Your task to perform on an android device: make emails show in primary in the gmail app Image 0: 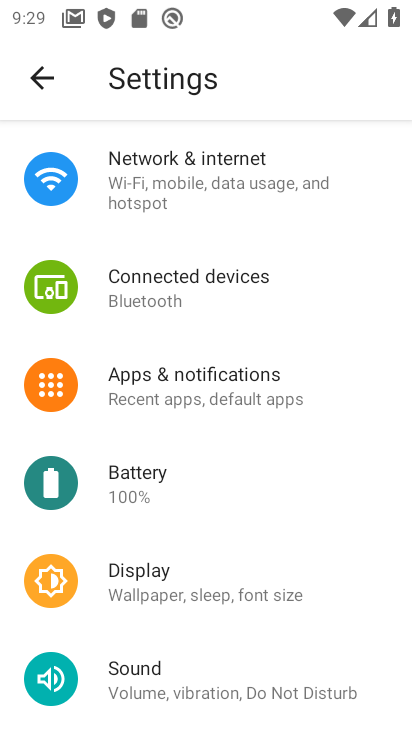
Step 0: press home button
Your task to perform on an android device: make emails show in primary in the gmail app Image 1: 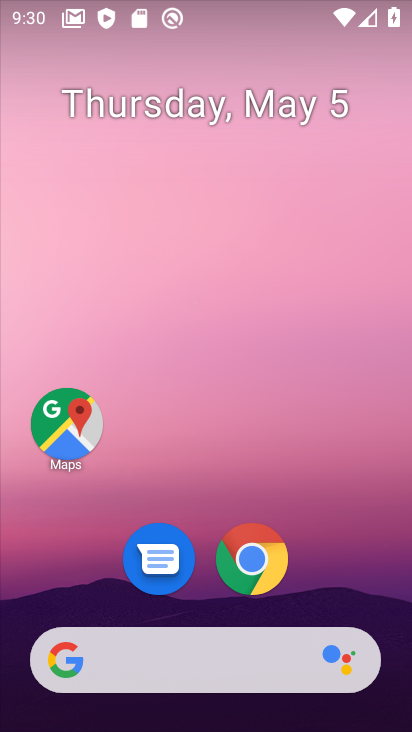
Step 1: drag from (82, 541) to (277, 169)
Your task to perform on an android device: make emails show in primary in the gmail app Image 2: 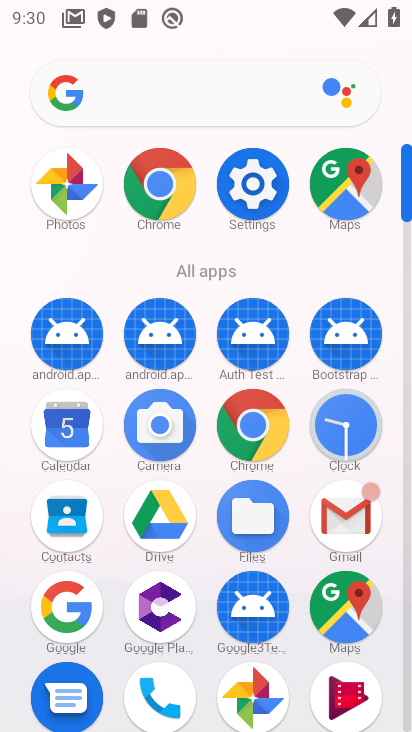
Step 2: click (341, 501)
Your task to perform on an android device: make emails show in primary in the gmail app Image 3: 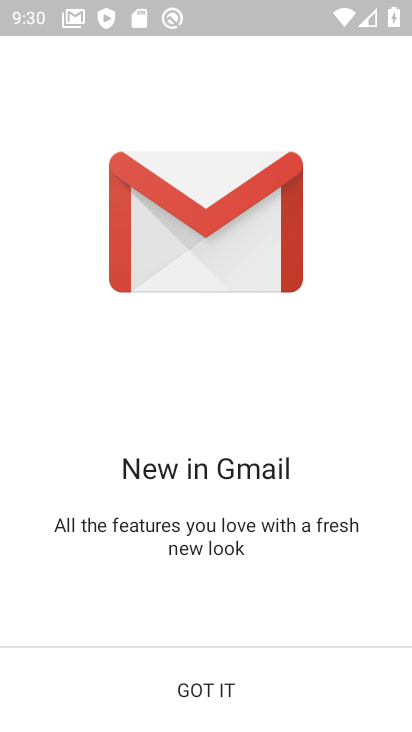
Step 3: click (192, 695)
Your task to perform on an android device: make emails show in primary in the gmail app Image 4: 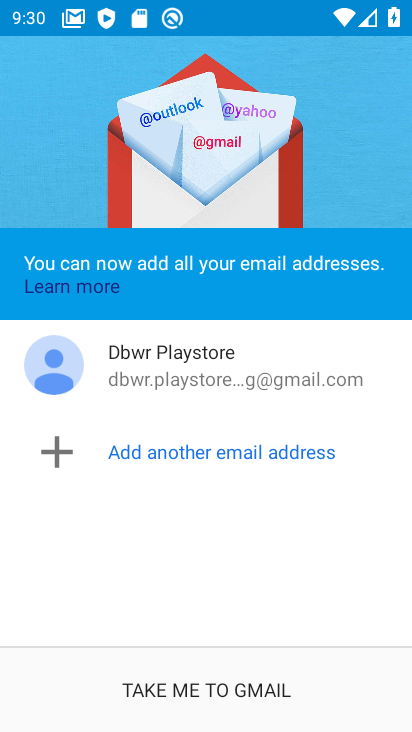
Step 4: click (200, 682)
Your task to perform on an android device: make emails show in primary in the gmail app Image 5: 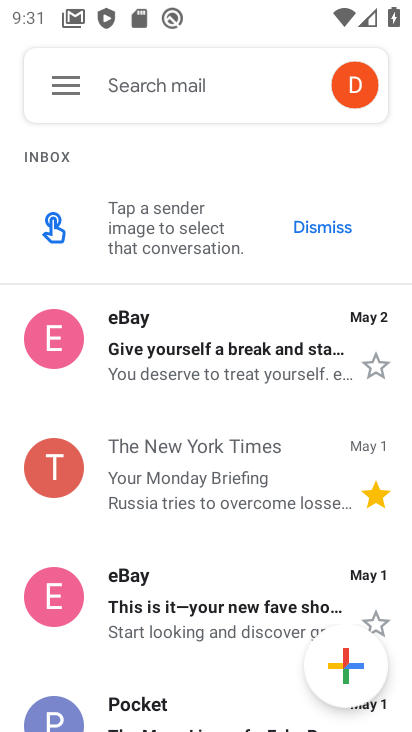
Step 5: click (61, 79)
Your task to perform on an android device: make emails show in primary in the gmail app Image 6: 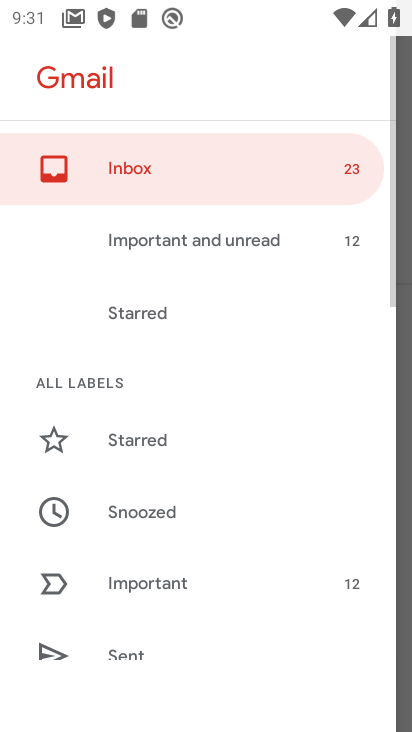
Step 6: task complete